Your task to perform on an android device: Open internet settings Image 0: 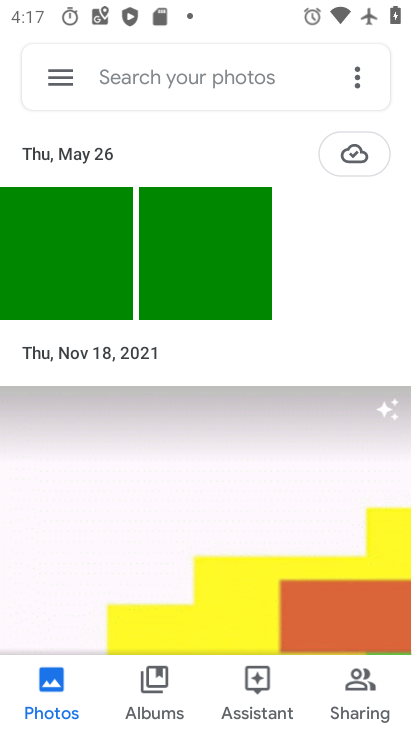
Step 0: press home button
Your task to perform on an android device: Open internet settings Image 1: 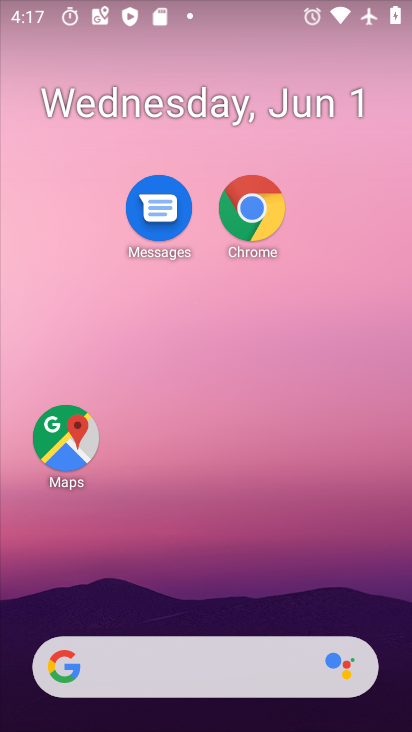
Step 1: drag from (216, 613) to (219, 248)
Your task to perform on an android device: Open internet settings Image 2: 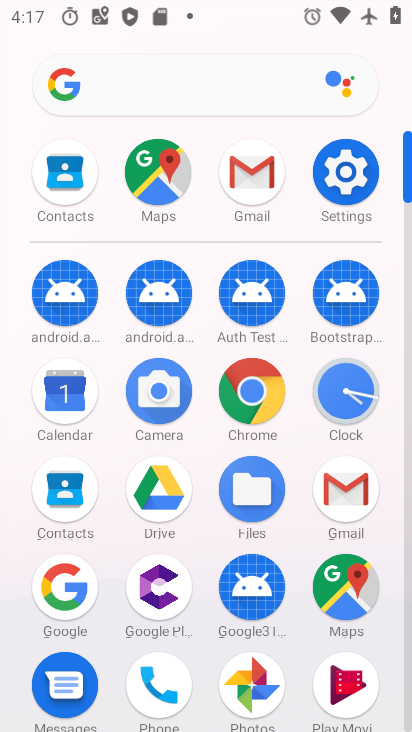
Step 2: click (354, 178)
Your task to perform on an android device: Open internet settings Image 3: 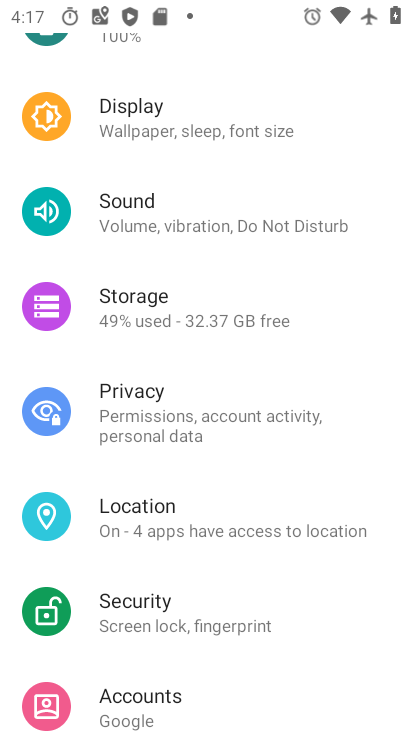
Step 3: drag from (212, 93) to (225, 397)
Your task to perform on an android device: Open internet settings Image 4: 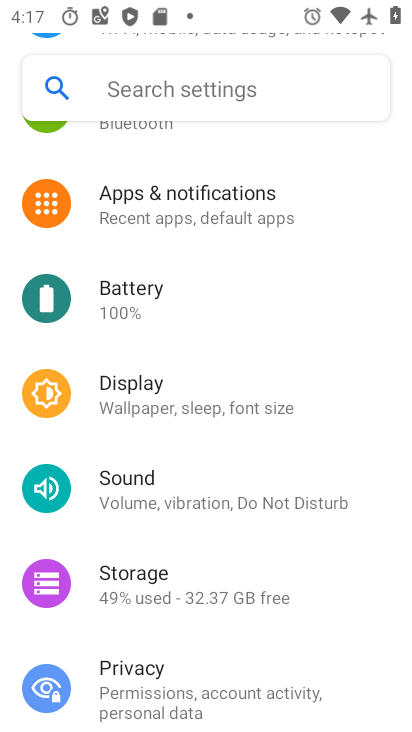
Step 4: drag from (193, 183) to (204, 472)
Your task to perform on an android device: Open internet settings Image 5: 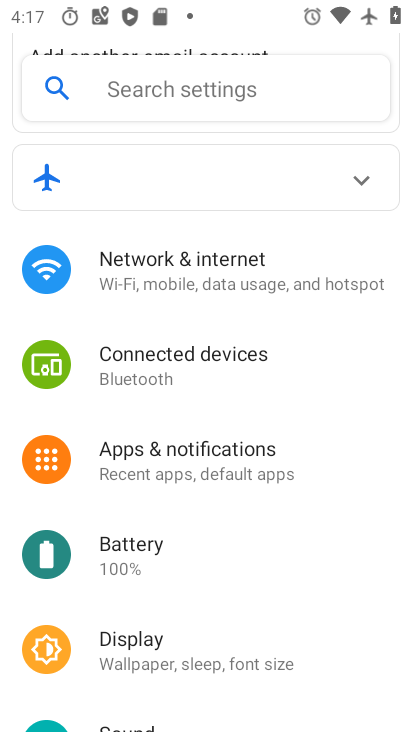
Step 5: click (213, 293)
Your task to perform on an android device: Open internet settings Image 6: 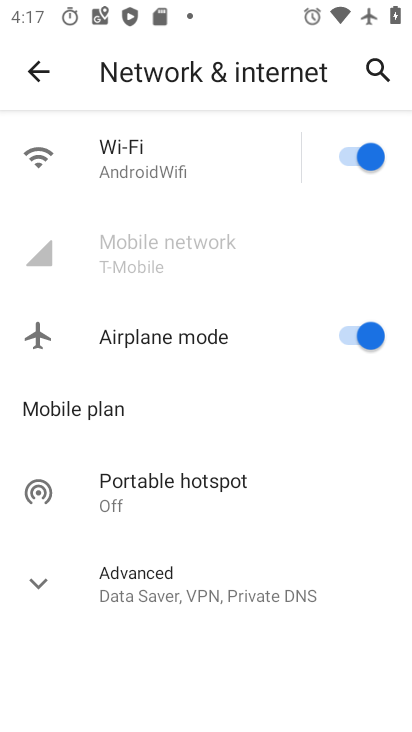
Step 6: click (197, 253)
Your task to perform on an android device: Open internet settings Image 7: 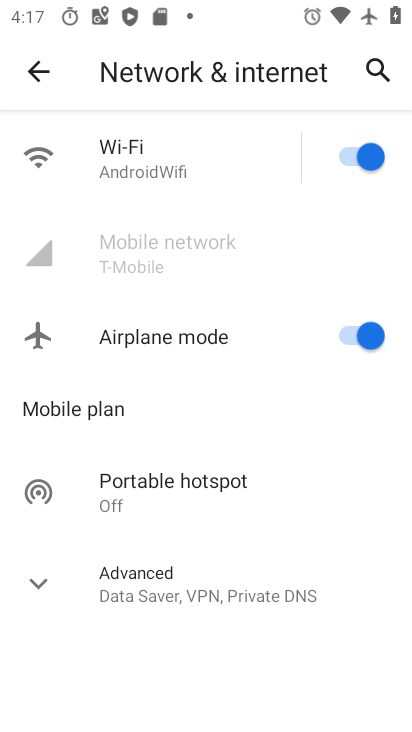
Step 7: click (159, 223)
Your task to perform on an android device: Open internet settings Image 8: 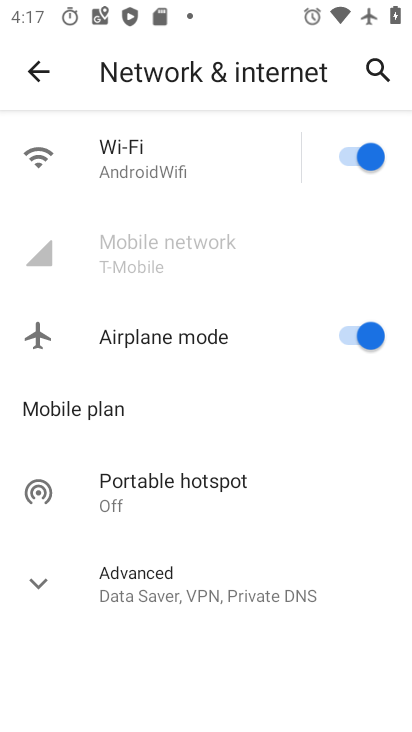
Step 8: task complete